Your task to perform on an android device: turn off notifications settings in the gmail app Image 0: 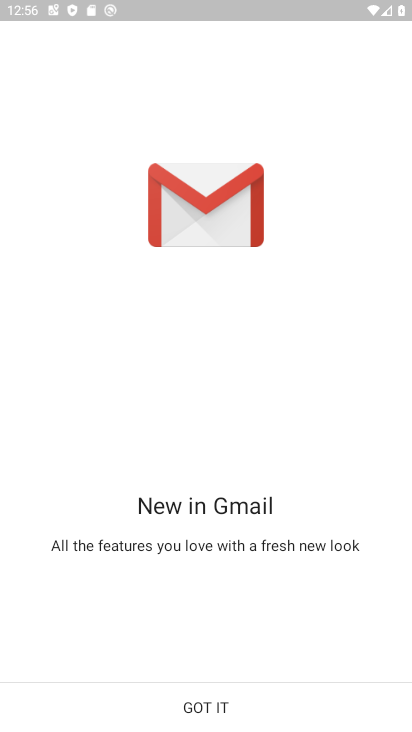
Step 0: press home button
Your task to perform on an android device: turn off notifications settings in the gmail app Image 1: 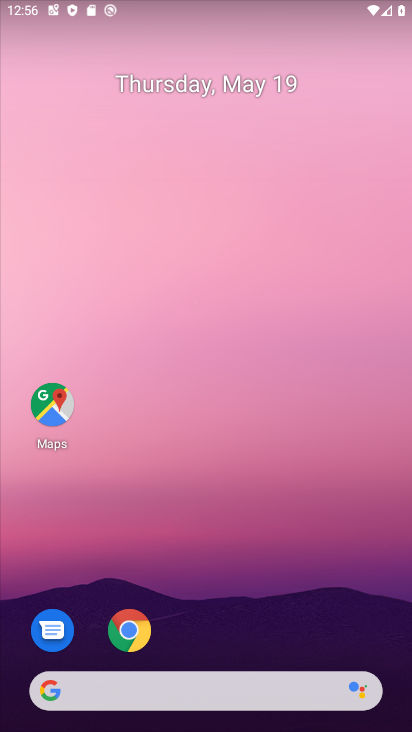
Step 1: drag from (173, 654) to (134, 122)
Your task to perform on an android device: turn off notifications settings in the gmail app Image 2: 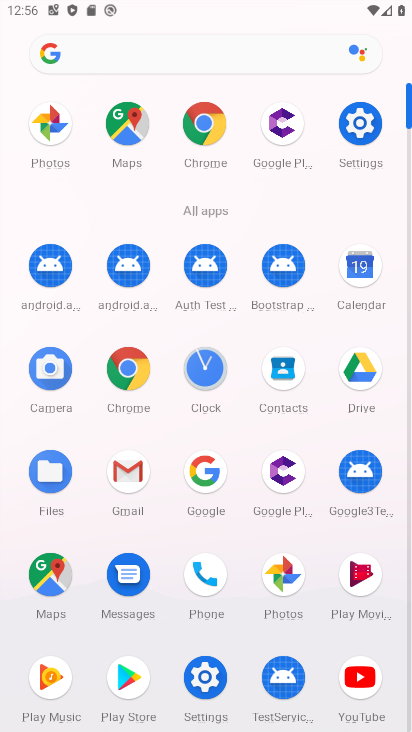
Step 2: click (139, 463)
Your task to perform on an android device: turn off notifications settings in the gmail app Image 3: 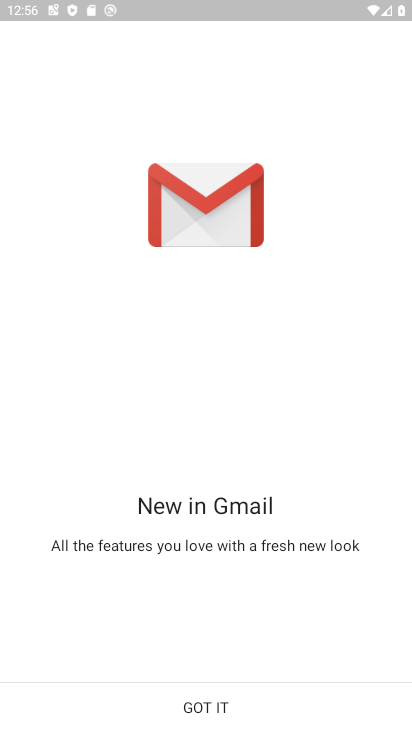
Step 3: click (207, 717)
Your task to perform on an android device: turn off notifications settings in the gmail app Image 4: 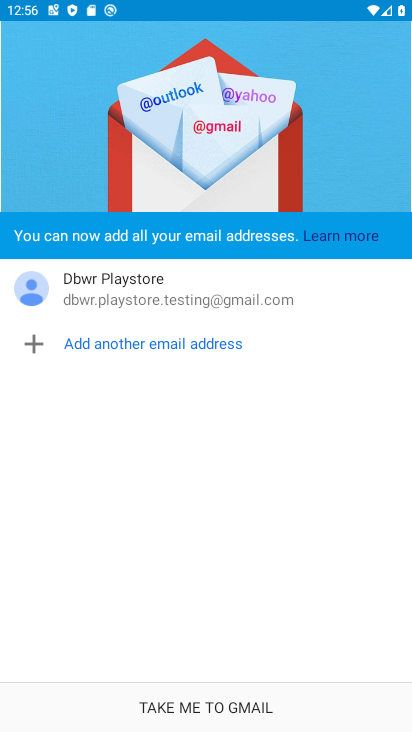
Step 4: click (210, 697)
Your task to perform on an android device: turn off notifications settings in the gmail app Image 5: 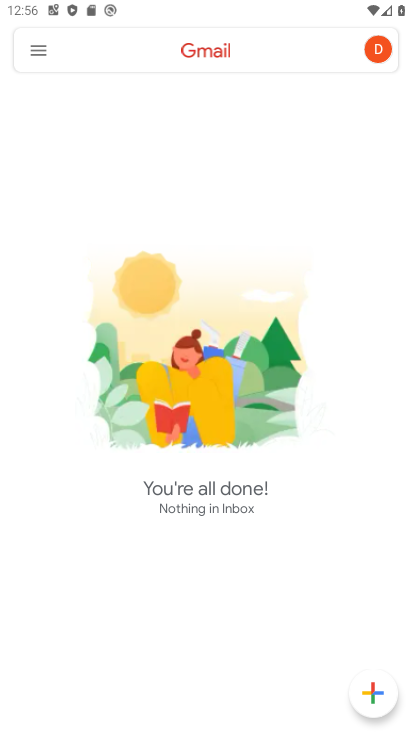
Step 5: click (38, 51)
Your task to perform on an android device: turn off notifications settings in the gmail app Image 6: 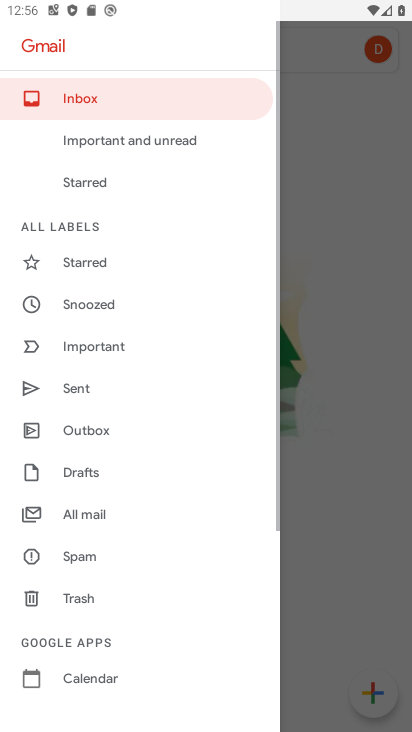
Step 6: drag from (94, 620) to (95, 78)
Your task to perform on an android device: turn off notifications settings in the gmail app Image 7: 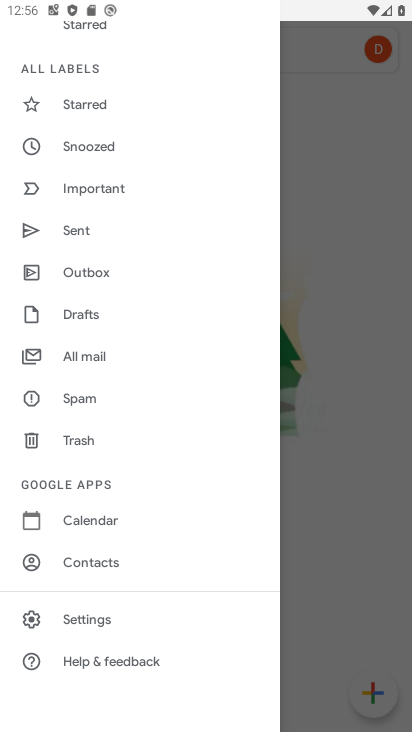
Step 7: click (71, 626)
Your task to perform on an android device: turn off notifications settings in the gmail app Image 8: 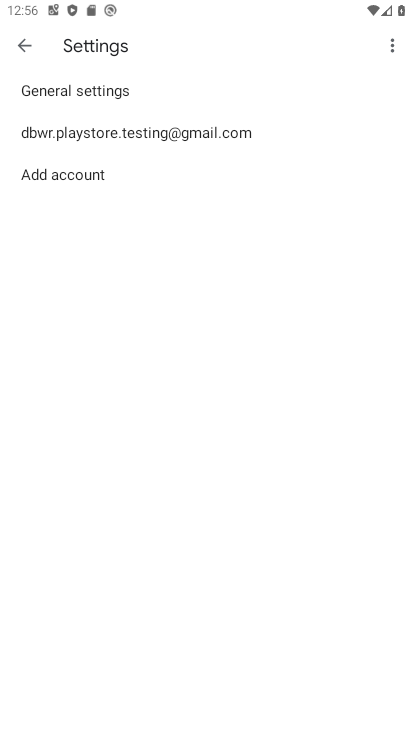
Step 8: click (36, 89)
Your task to perform on an android device: turn off notifications settings in the gmail app Image 9: 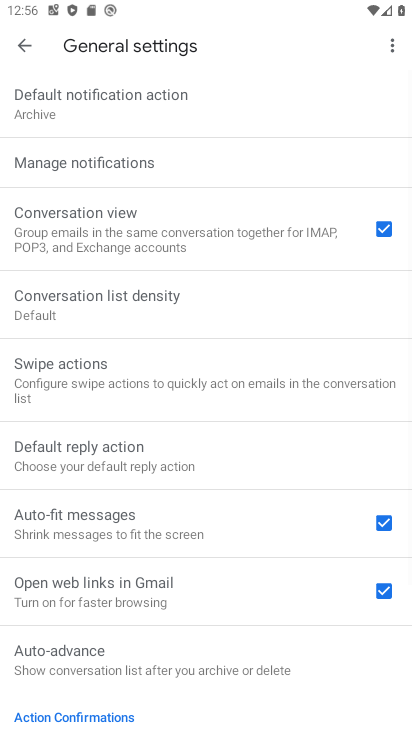
Step 9: click (280, 163)
Your task to perform on an android device: turn off notifications settings in the gmail app Image 10: 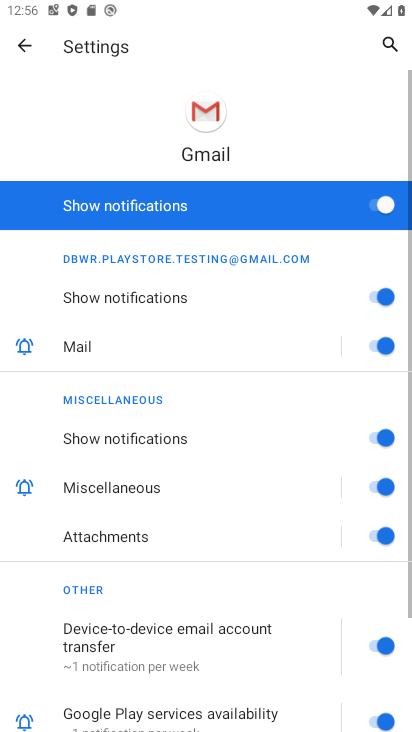
Step 10: click (375, 192)
Your task to perform on an android device: turn off notifications settings in the gmail app Image 11: 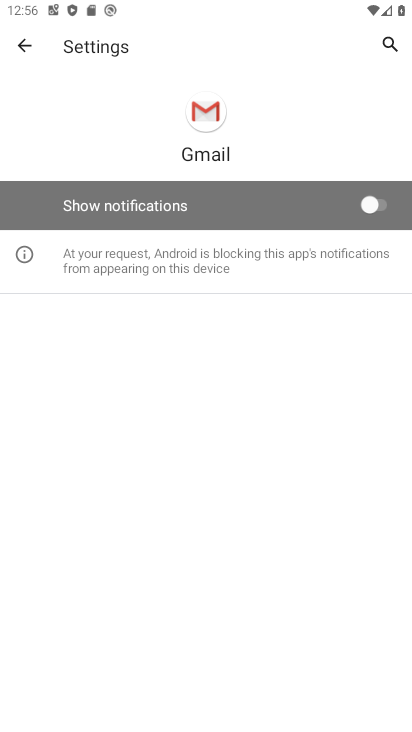
Step 11: task complete